Your task to perform on an android device: Search for the best rated kitchen reno kits on Lowes.com Image 0: 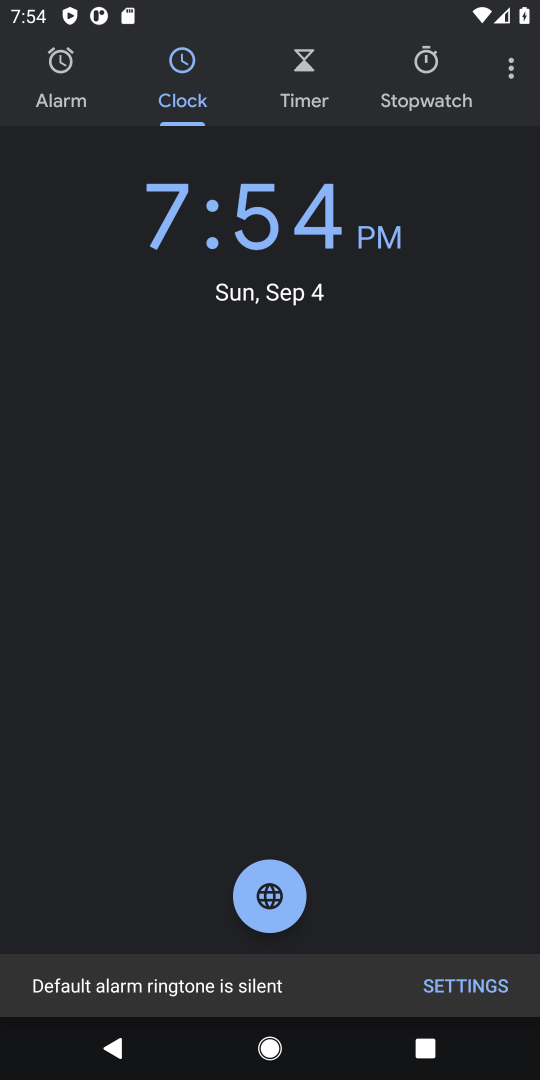
Step 0: press home button
Your task to perform on an android device: Search for the best rated kitchen reno kits on Lowes.com Image 1: 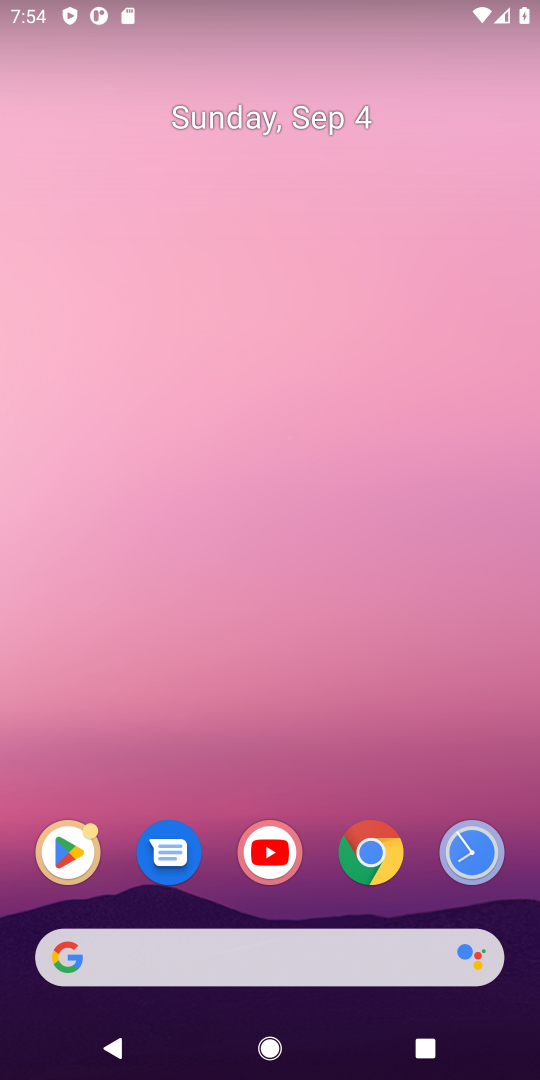
Step 1: drag from (448, 796) to (289, 0)
Your task to perform on an android device: Search for the best rated kitchen reno kits on Lowes.com Image 2: 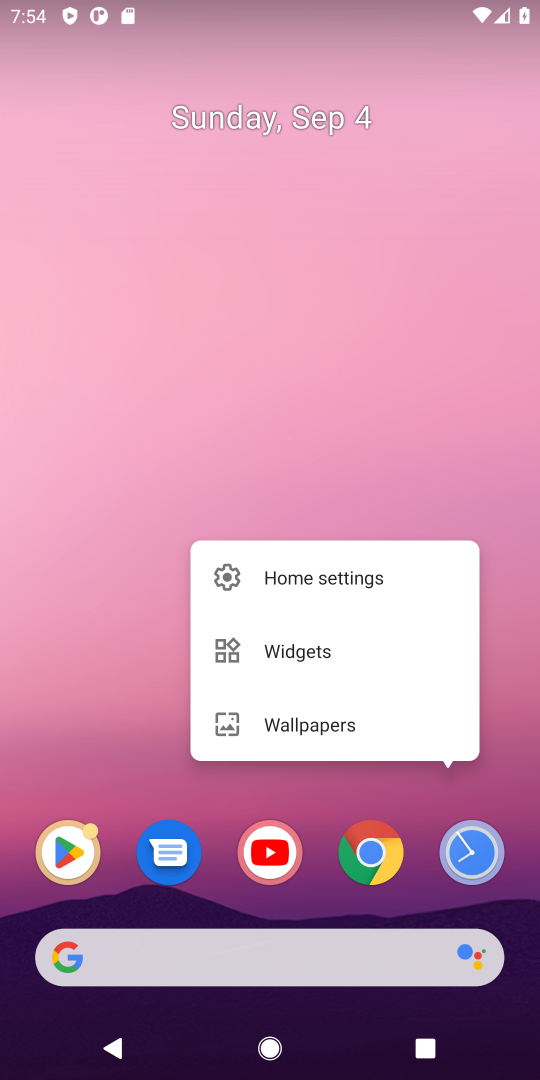
Step 2: click (311, 332)
Your task to perform on an android device: Search for the best rated kitchen reno kits on Lowes.com Image 3: 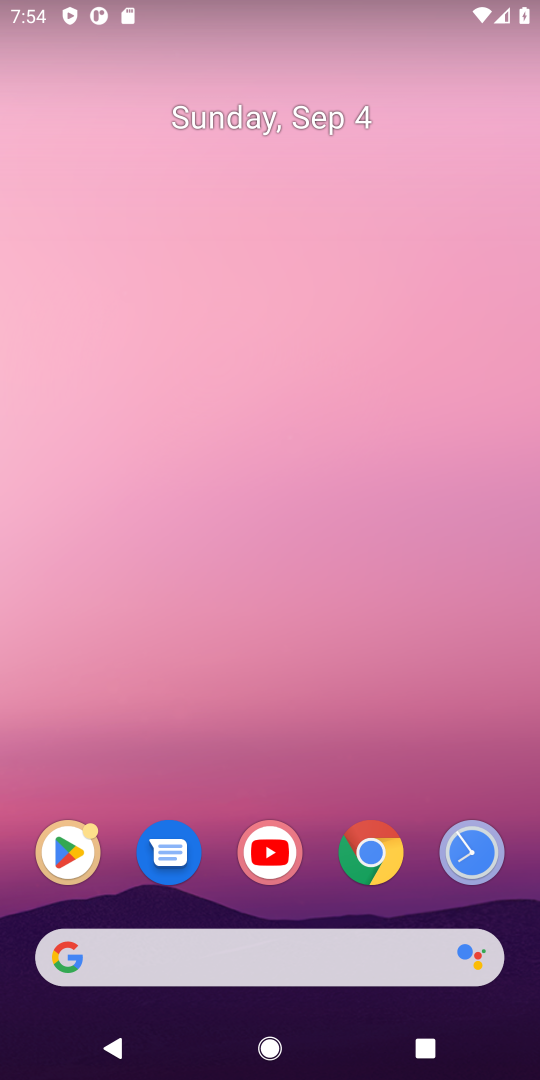
Step 3: drag from (360, 416) to (289, 4)
Your task to perform on an android device: Search for the best rated kitchen reno kits on Lowes.com Image 4: 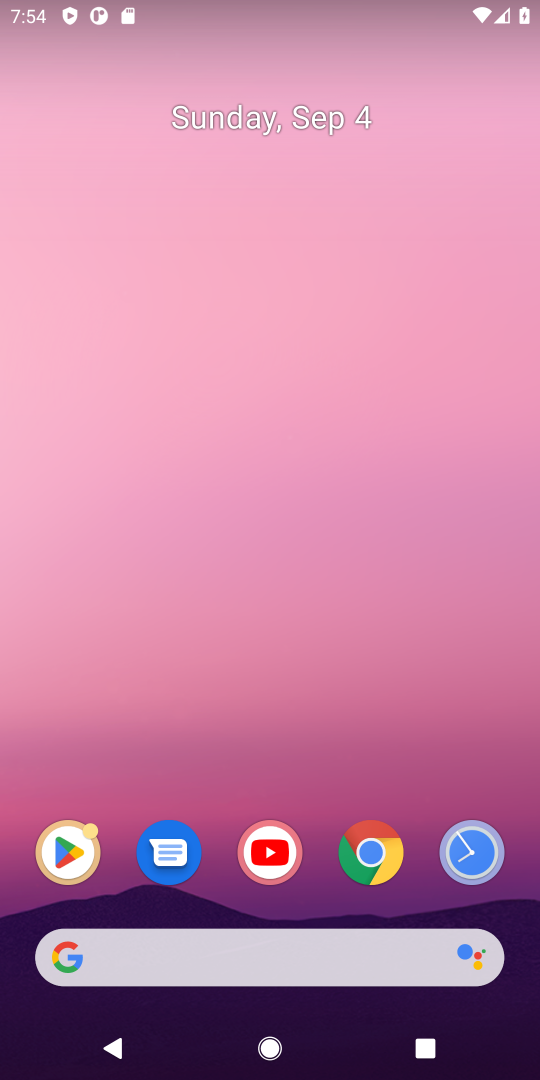
Step 4: drag from (361, 495) to (290, 31)
Your task to perform on an android device: Search for the best rated kitchen reno kits on Lowes.com Image 5: 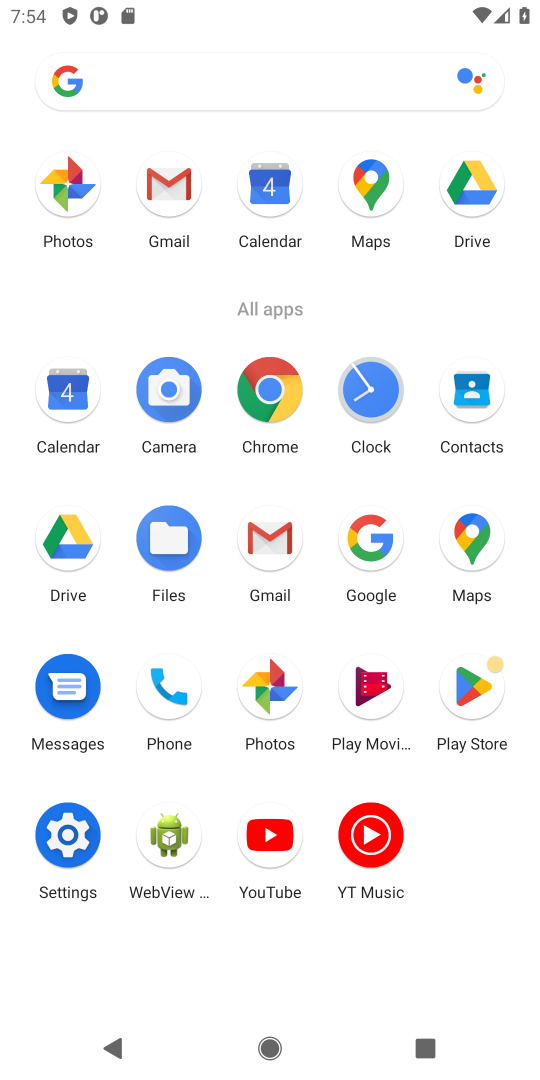
Step 5: click (360, 554)
Your task to perform on an android device: Search for the best rated kitchen reno kits on Lowes.com Image 6: 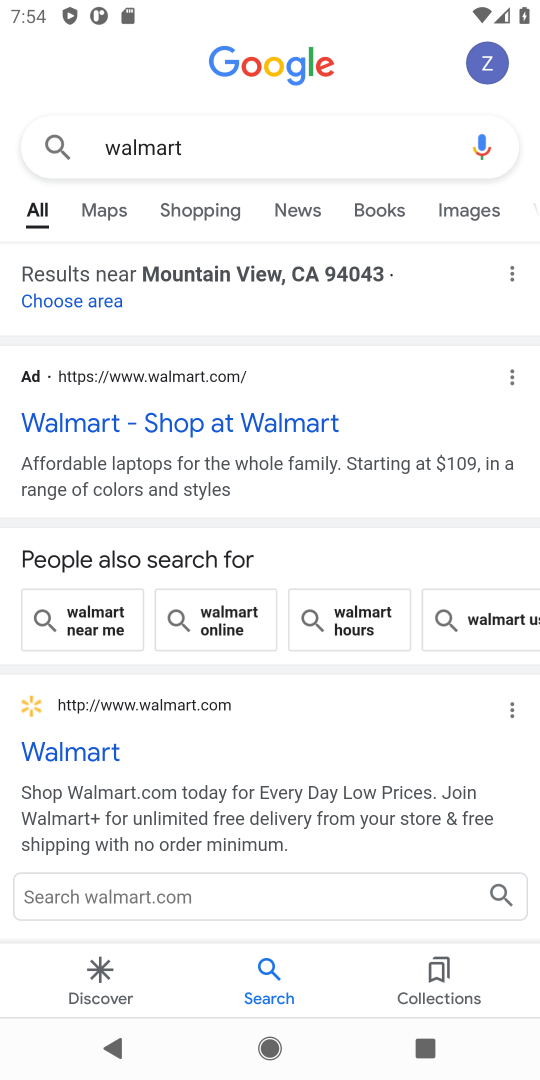
Step 6: press back button
Your task to perform on an android device: Search for the best rated kitchen reno kits on Lowes.com Image 7: 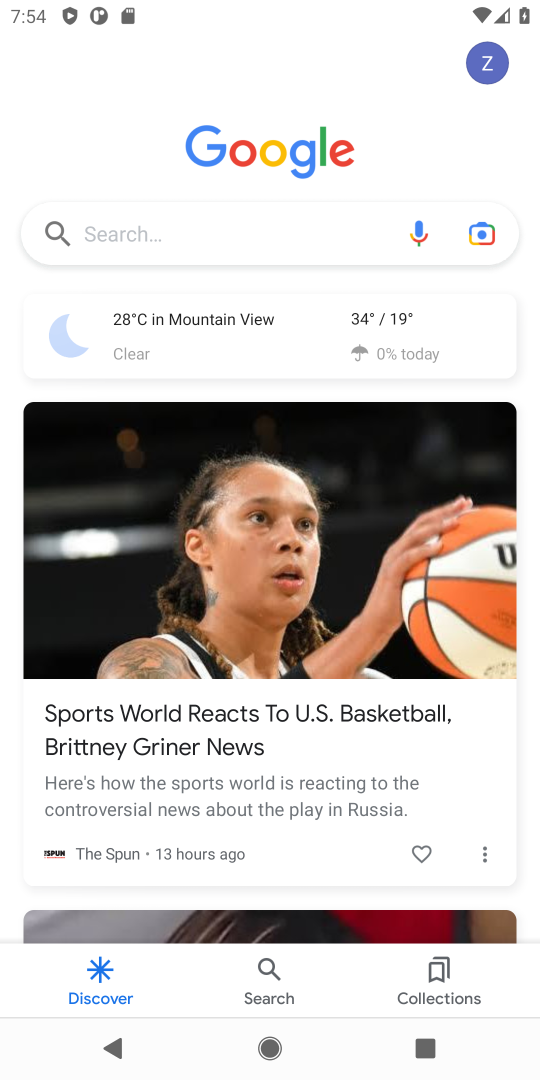
Step 7: click (150, 217)
Your task to perform on an android device: Search for the best rated kitchen reno kits on Lowes.com Image 8: 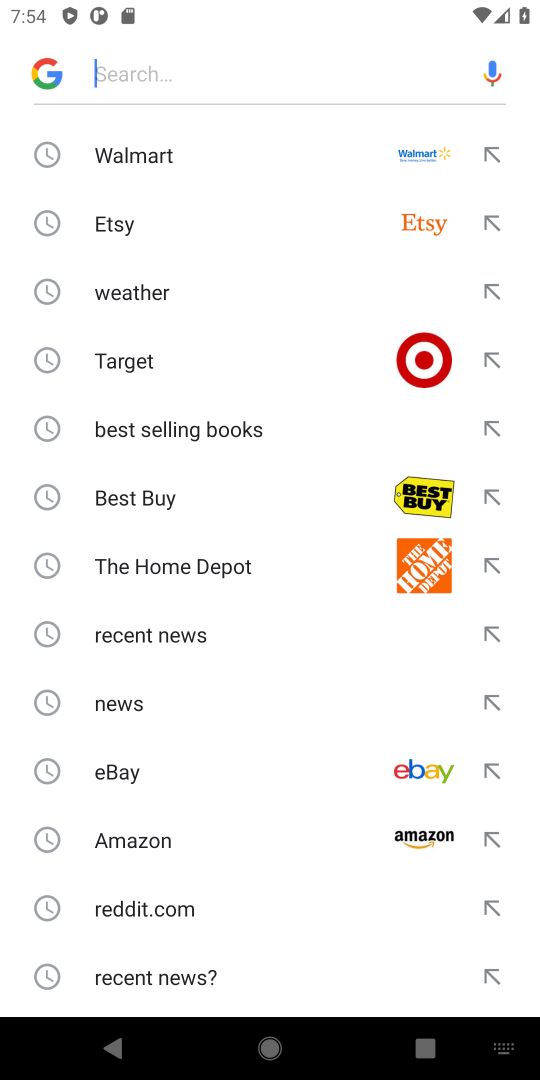
Step 8: type "Lowes.com"
Your task to perform on an android device: Search for the best rated kitchen reno kits on Lowes.com Image 9: 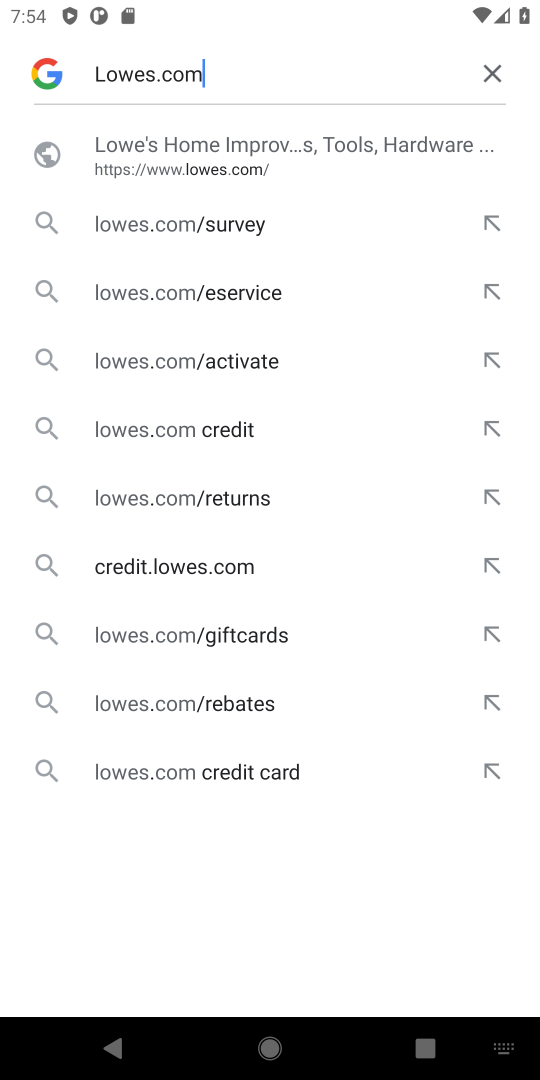
Step 9: click (307, 162)
Your task to perform on an android device: Search for the best rated kitchen reno kits on Lowes.com Image 10: 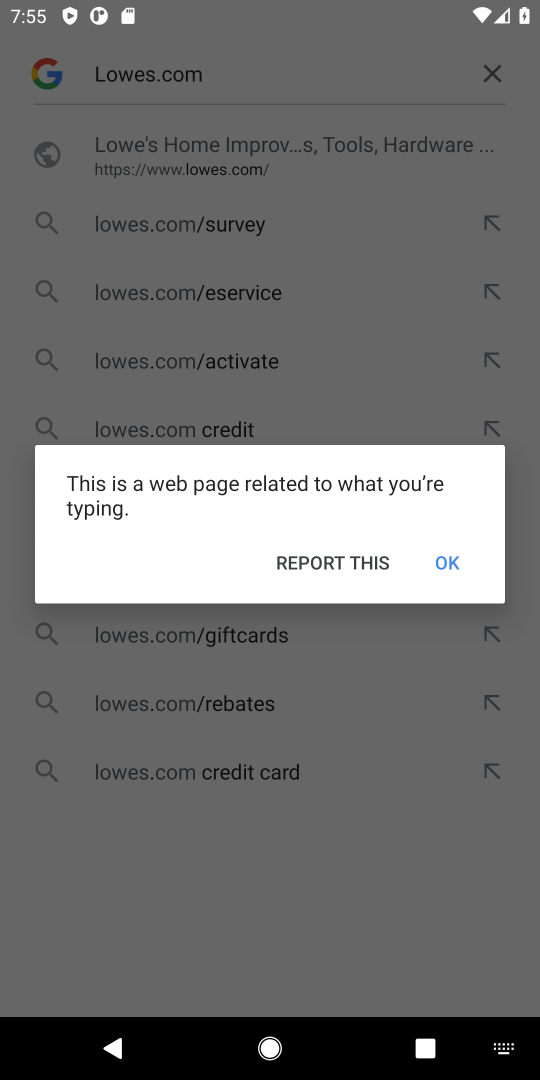
Step 10: click (452, 560)
Your task to perform on an android device: Search for the best rated kitchen reno kits on Lowes.com Image 11: 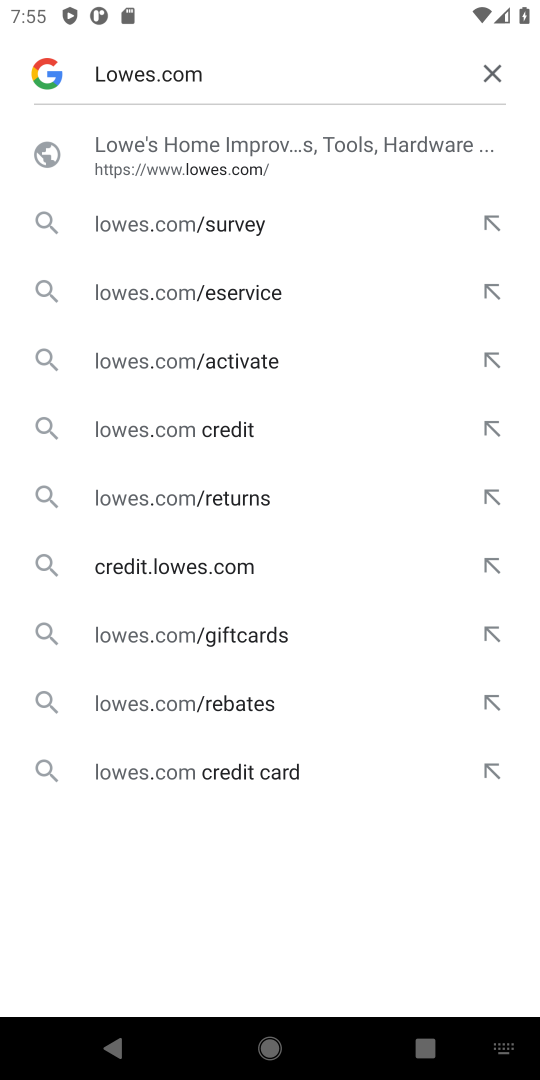
Step 11: click (201, 185)
Your task to perform on an android device: Search for the best rated kitchen reno kits on Lowes.com Image 12: 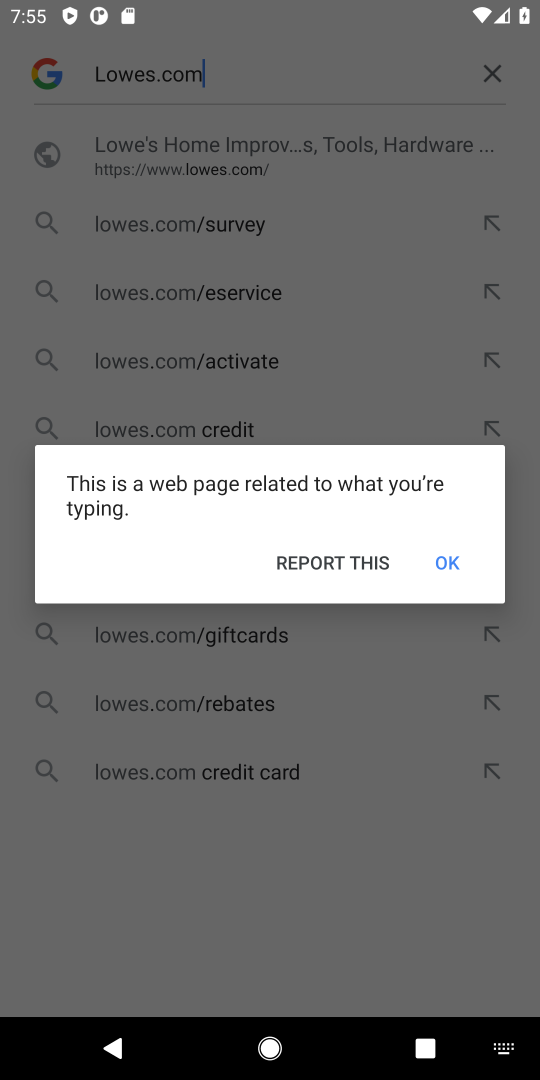
Step 12: task complete